Your task to perform on an android device: Open Google Chrome Image 0: 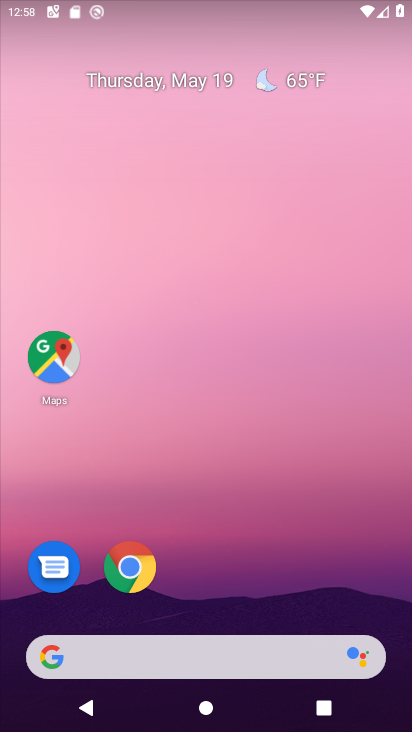
Step 0: click (140, 562)
Your task to perform on an android device: Open Google Chrome Image 1: 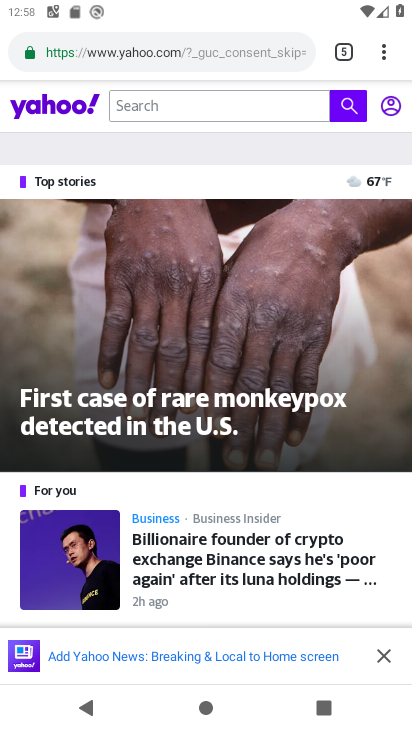
Step 1: task complete